Your task to perform on an android device: turn on airplane mode Image 0: 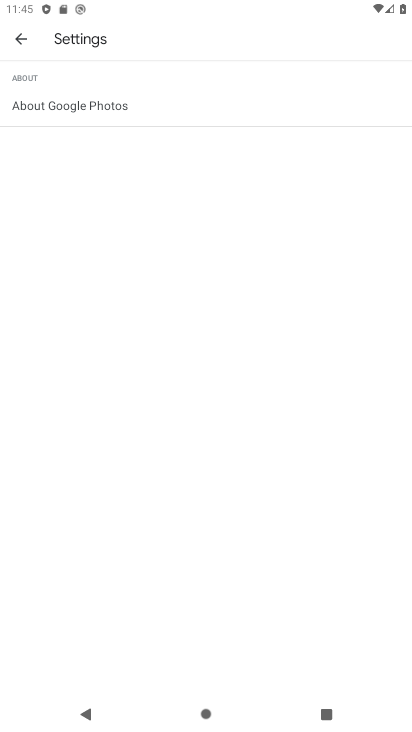
Step 0: press home button
Your task to perform on an android device: turn on airplane mode Image 1: 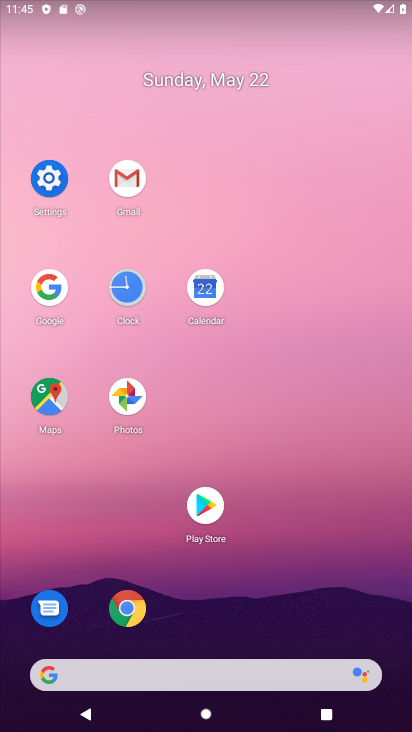
Step 1: click (55, 180)
Your task to perform on an android device: turn on airplane mode Image 2: 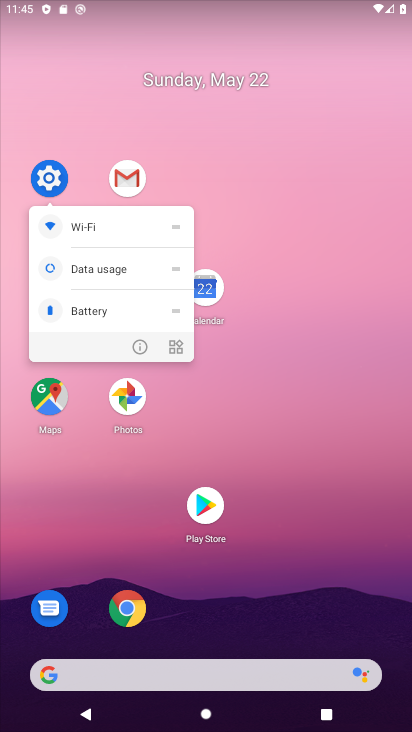
Step 2: click (59, 175)
Your task to perform on an android device: turn on airplane mode Image 3: 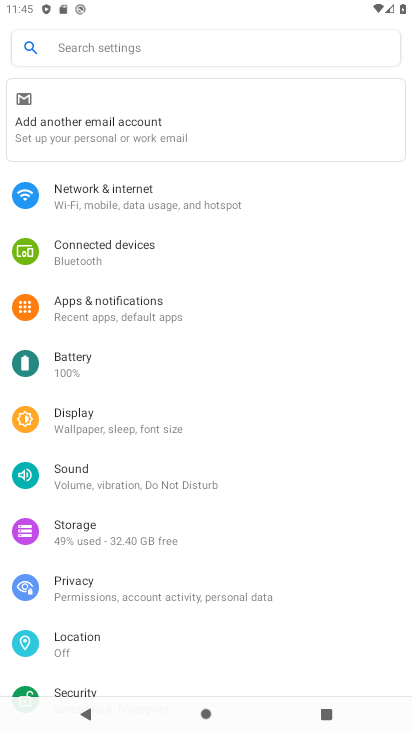
Step 3: click (142, 210)
Your task to perform on an android device: turn on airplane mode Image 4: 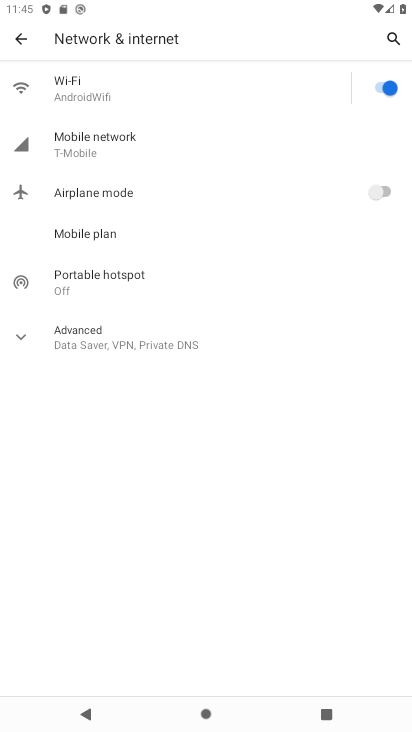
Step 4: click (396, 195)
Your task to perform on an android device: turn on airplane mode Image 5: 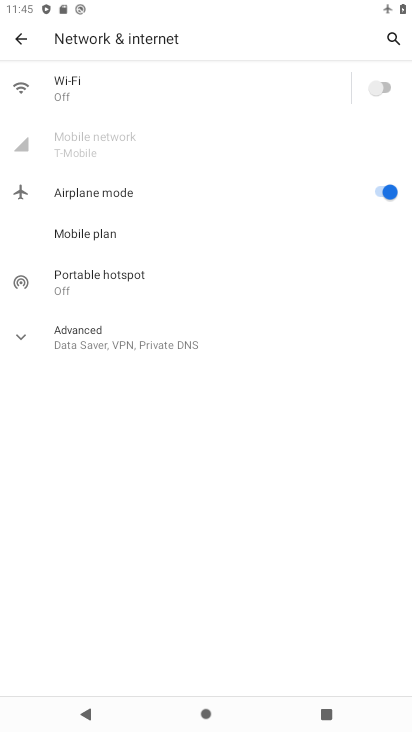
Step 5: task complete